Your task to perform on an android device: Search for Mexican restaurants on Maps Image 0: 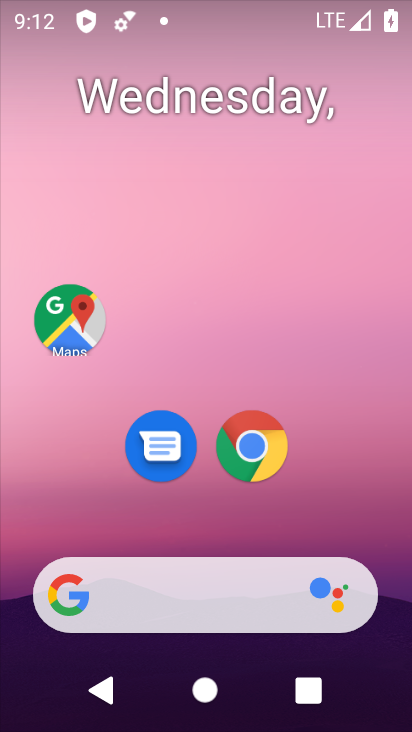
Step 0: click (68, 325)
Your task to perform on an android device: Search for Mexican restaurants on Maps Image 1: 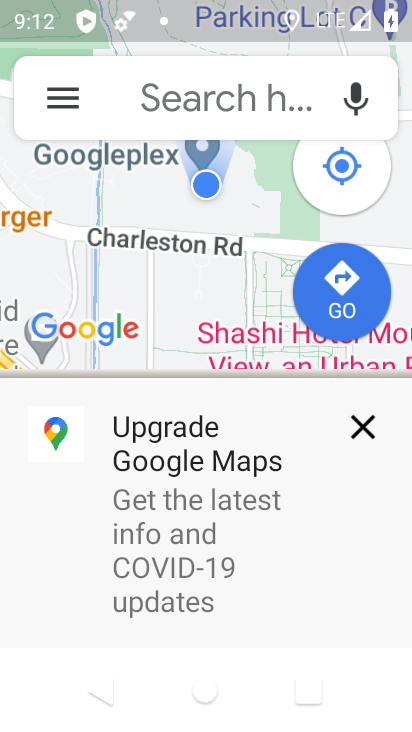
Step 1: click (179, 98)
Your task to perform on an android device: Search for Mexican restaurants on Maps Image 2: 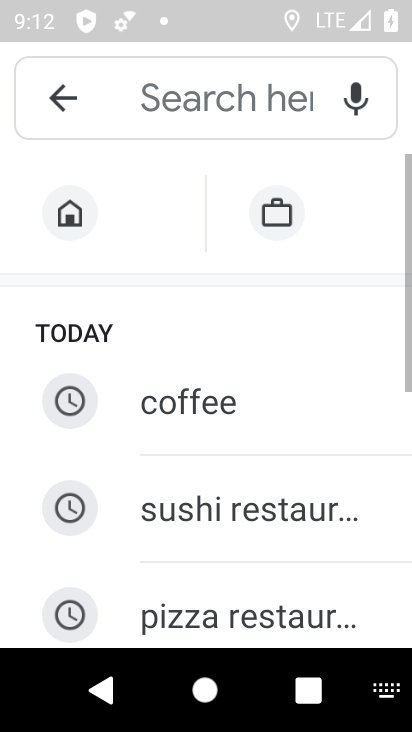
Step 2: drag from (206, 581) to (260, 165)
Your task to perform on an android device: Search for Mexican restaurants on Maps Image 3: 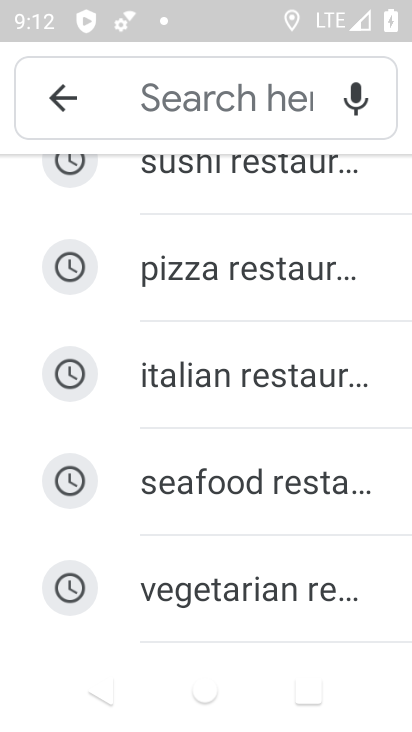
Step 3: drag from (233, 565) to (324, 229)
Your task to perform on an android device: Search for Mexican restaurants on Maps Image 4: 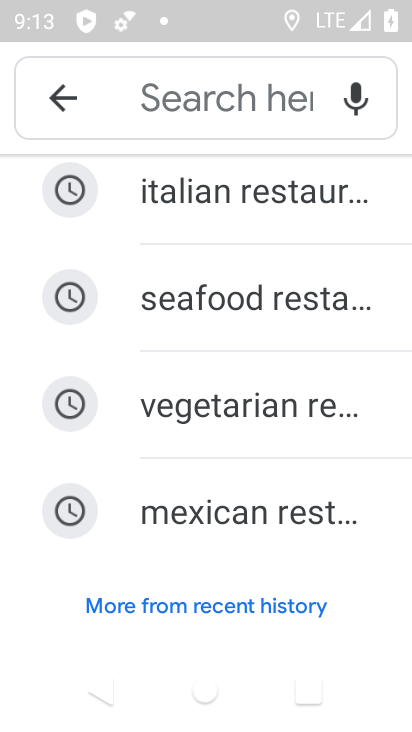
Step 4: click (223, 535)
Your task to perform on an android device: Search for Mexican restaurants on Maps Image 5: 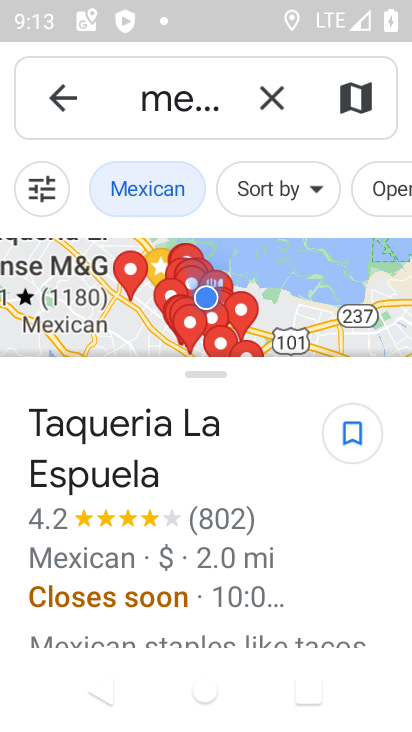
Step 5: task complete